Your task to perform on an android device: What's the weather today? Image 0: 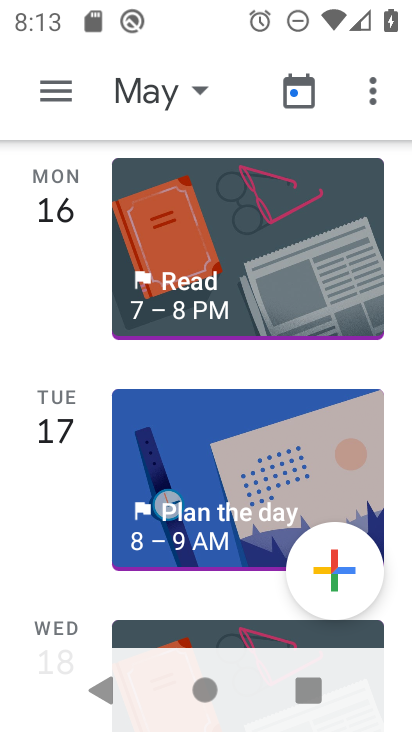
Step 0: press home button
Your task to perform on an android device: What's the weather today? Image 1: 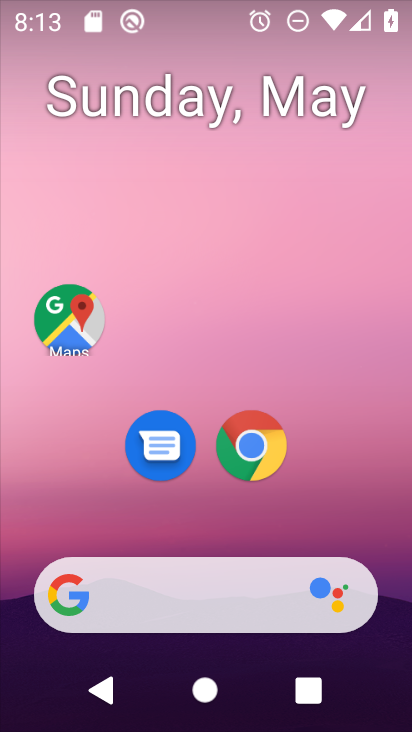
Step 1: drag from (328, 562) to (305, 51)
Your task to perform on an android device: What's the weather today? Image 2: 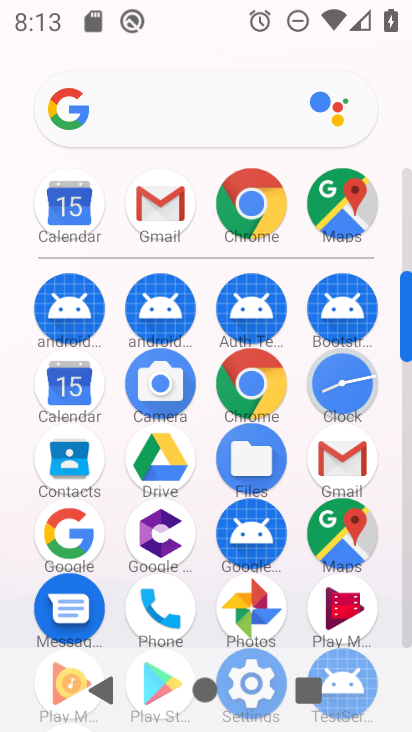
Step 2: drag from (228, 609) to (231, 414)
Your task to perform on an android device: What's the weather today? Image 3: 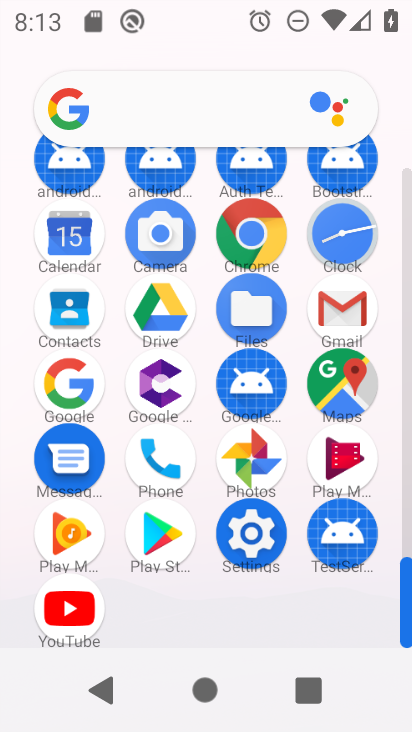
Step 3: click (83, 402)
Your task to perform on an android device: What's the weather today? Image 4: 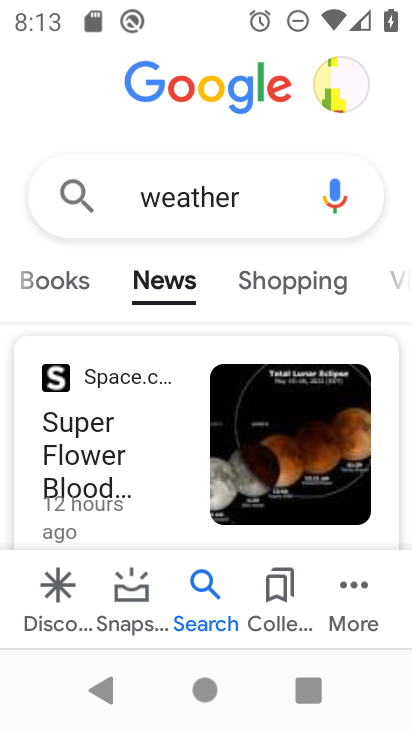
Step 4: click (68, 283)
Your task to perform on an android device: What's the weather today? Image 5: 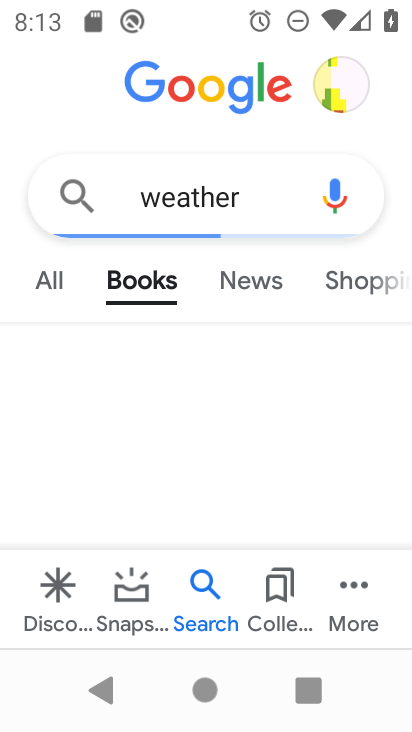
Step 5: click (35, 281)
Your task to perform on an android device: What's the weather today? Image 6: 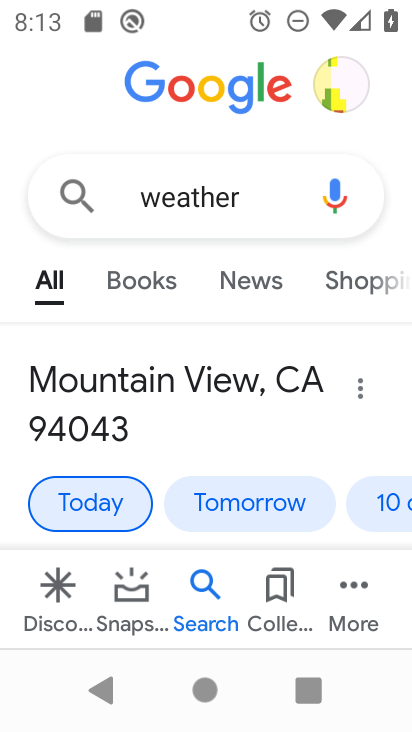
Step 6: task complete